Your task to perform on an android device: Open calendar and show me the third week of next month Image 0: 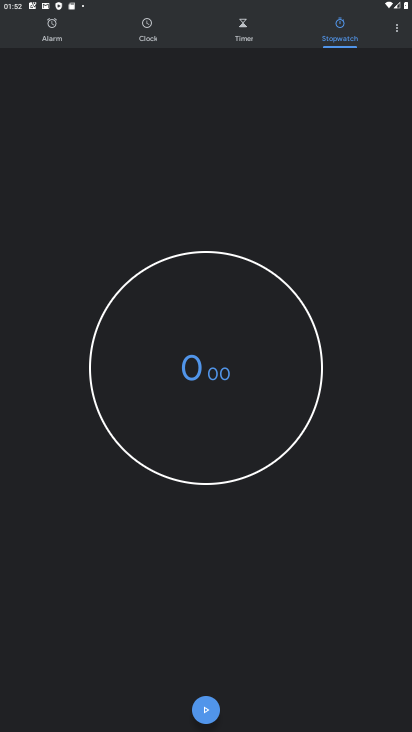
Step 0: press home button
Your task to perform on an android device: Open calendar and show me the third week of next month Image 1: 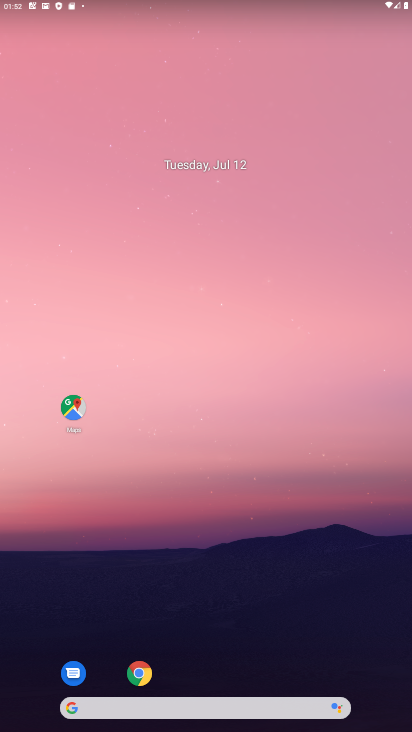
Step 1: drag from (201, 581) to (219, 80)
Your task to perform on an android device: Open calendar and show me the third week of next month Image 2: 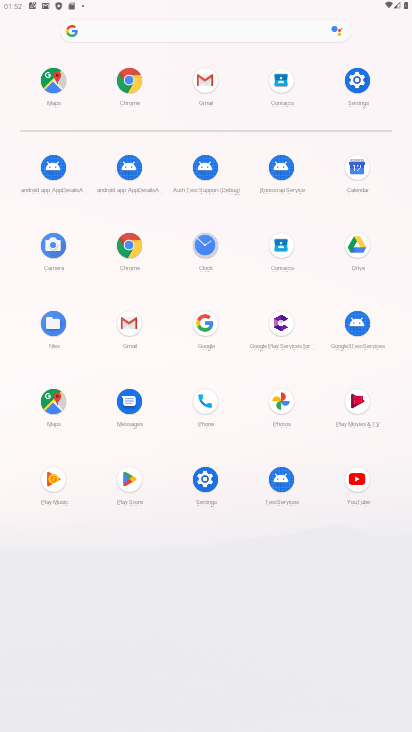
Step 2: click (351, 170)
Your task to perform on an android device: Open calendar and show me the third week of next month Image 3: 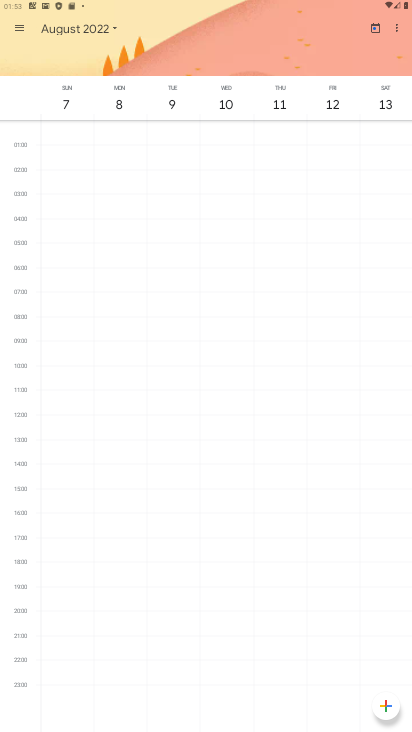
Step 3: task complete